Your task to perform on an android device: Open internet settings Image 0: 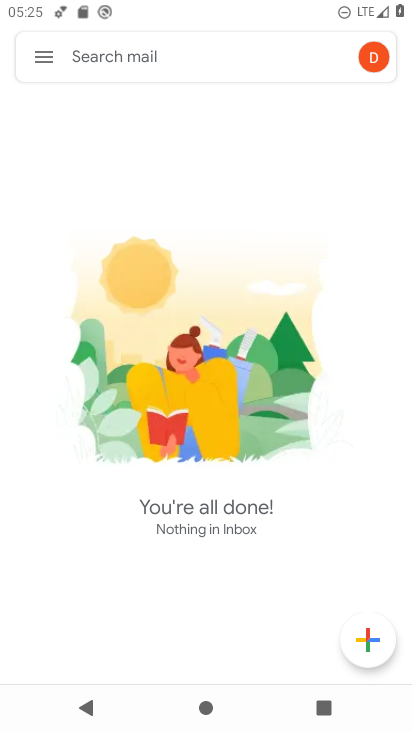
Step 0: press home button
Your task to perform on an android device: Open internet settings Image 1: 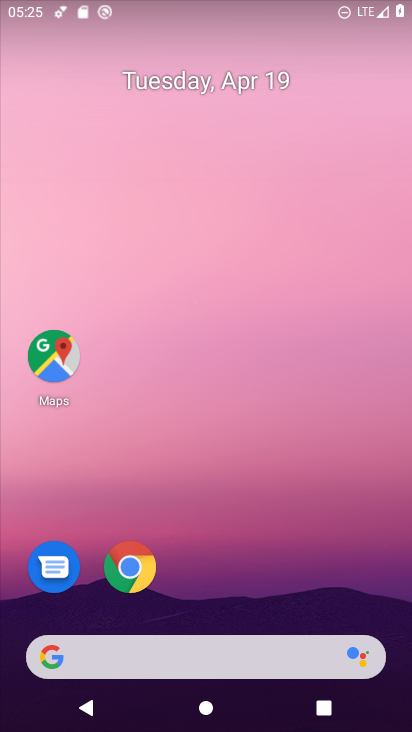
Step 1: drag from (204, 477) to (188, 6)
Your task to perform on an android device: Open internet settings Image 2: 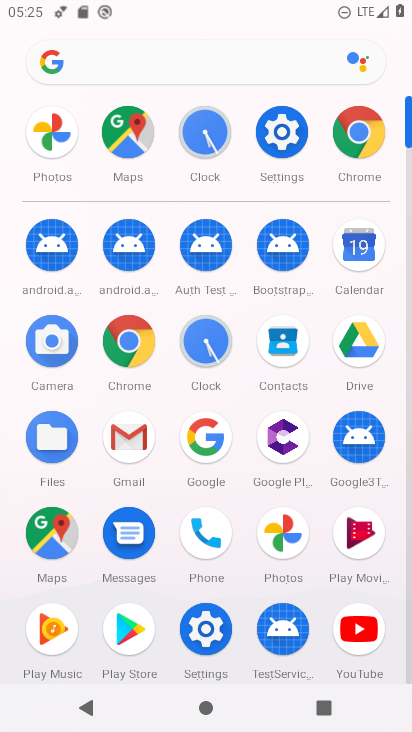
Step 2: click (210, 625)
Your task to perform on an android device: Open internet settings Image 3: 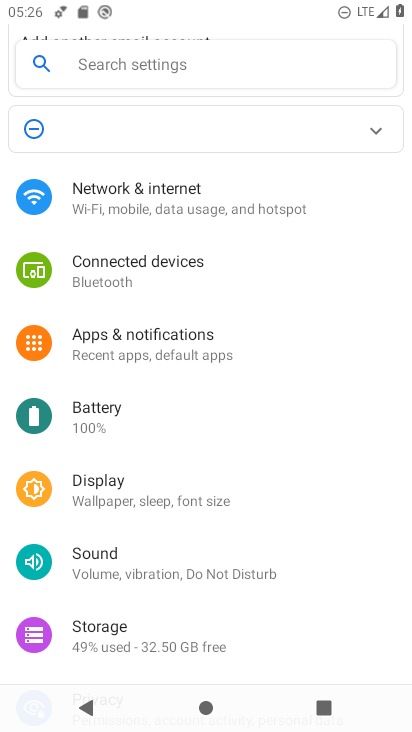
Step 3: click (199, 196)
Your task to perform on an android device: Open internet settings Image 4: 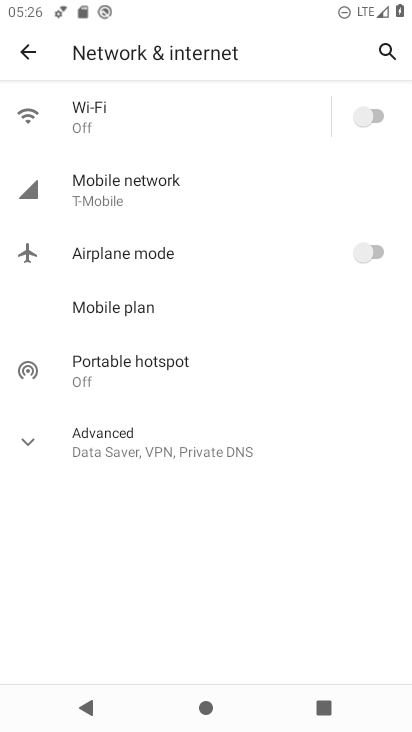
Step 4: click (174, 184)
Your task to perform on an android device: Open internet settings Image 5: 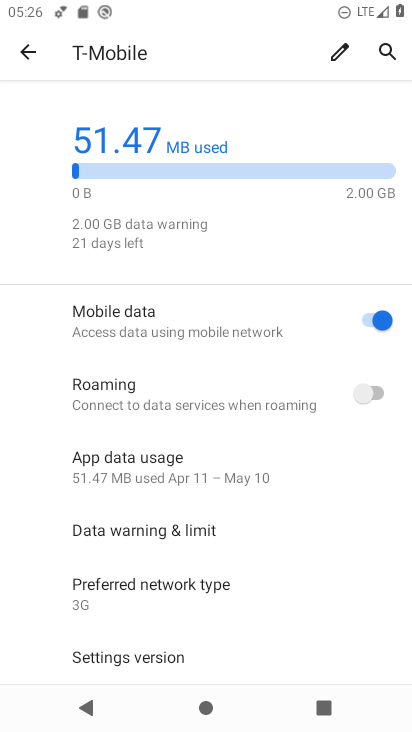
Step 5: task complete